Your task to perform on an android device: Do I have any events today? Image 0: 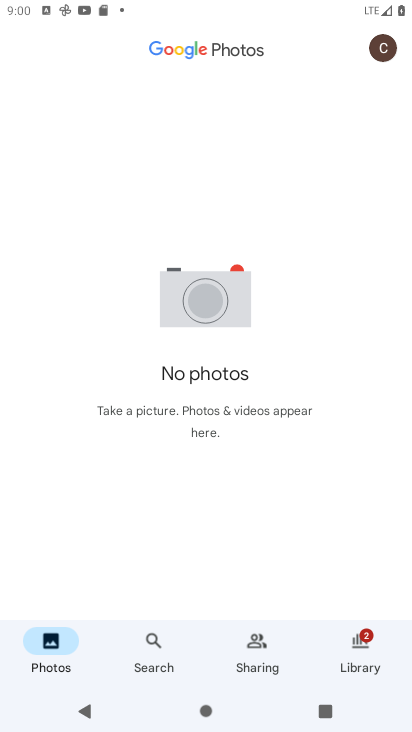
Step 0: press home button
Your task to perform on an android device: Do I have any events today? Image 1: 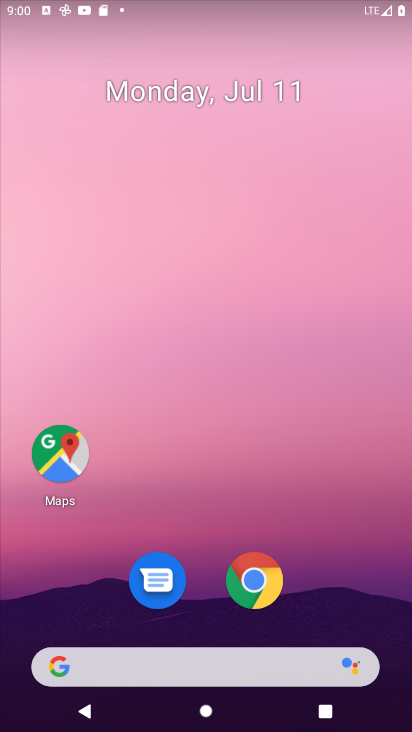
Step 1: drag from (166, 408) to (199, 3)
Your task to perform on an android device: Do I have any events today? Image 2: 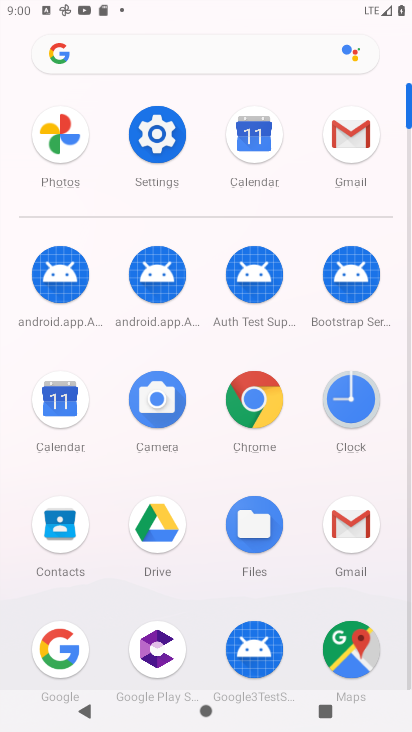
Step 2: click (73, 388)
Your task to perform on an android device: Do I have any events today? Image 3: 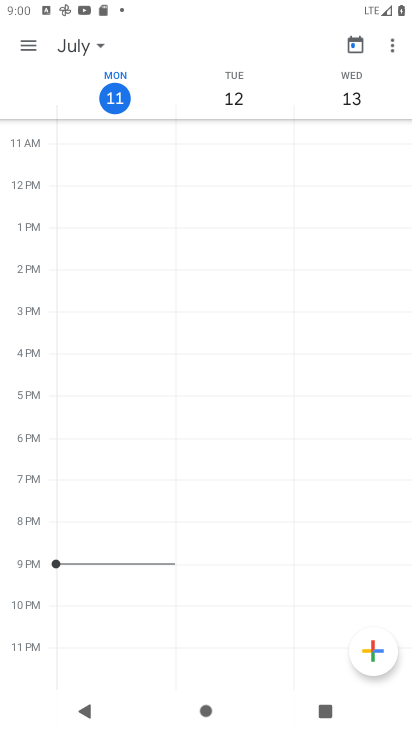
Step 3: task complete